Your task to perform on an android device: turn off improve location accuracy Image 0: 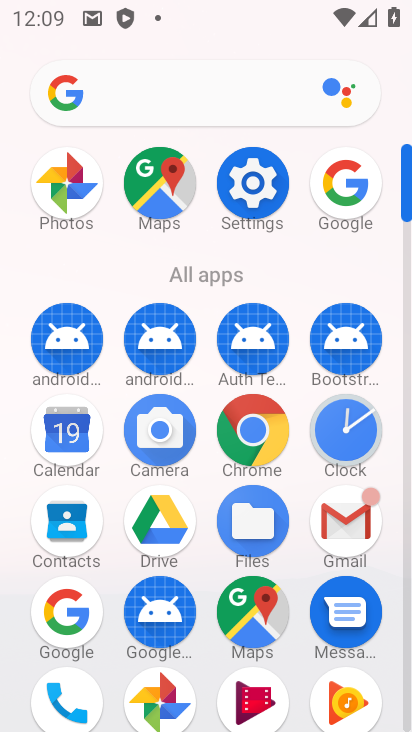
Step 0: press home button
Your task to perform on an android device: turn off improve location accuracy Image 1: 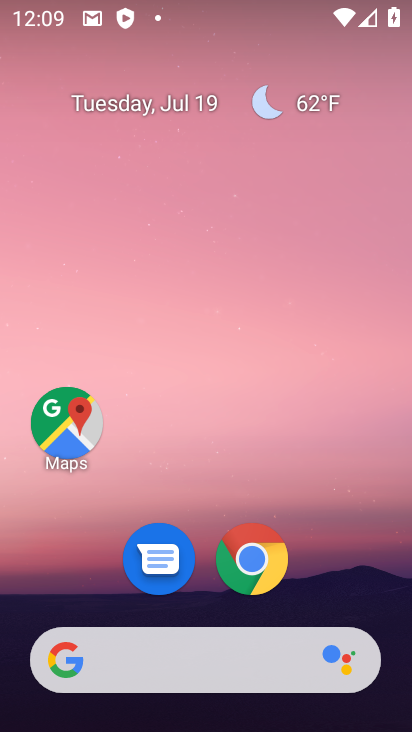
Step 1: drag from (280, 630) to (218, 164)
Your task to perform on an android device: turn off improve location accuracy Image 2: 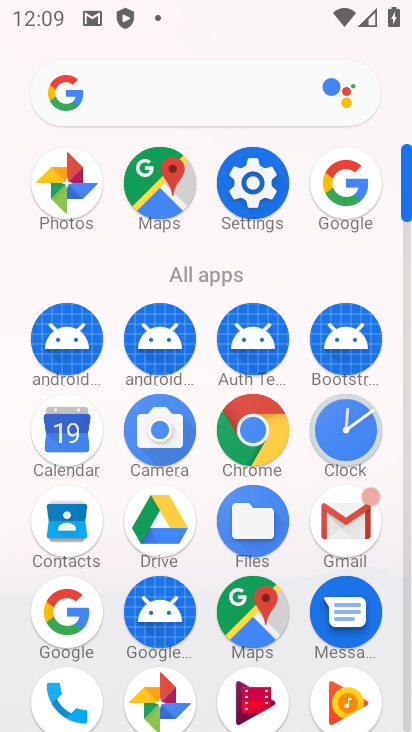
Step 2: click (264, 191)
Your task to perform on an android device: turn off improve location accuracy Image 3: 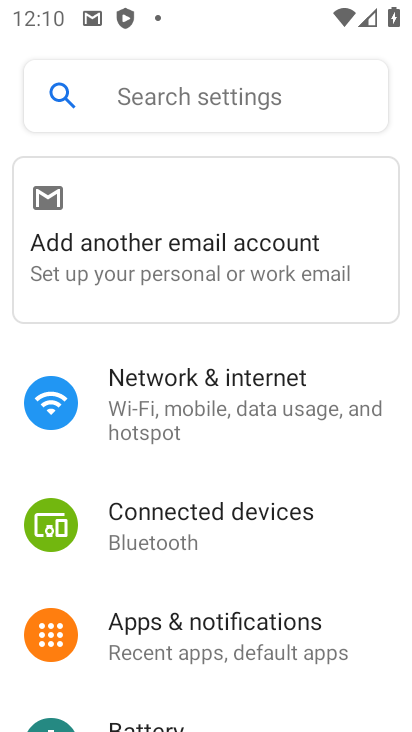
Step 3: drag from (256, 594) to (266, 230)
Your task to perform on an android device: turn off improve location accuracy Image 4: 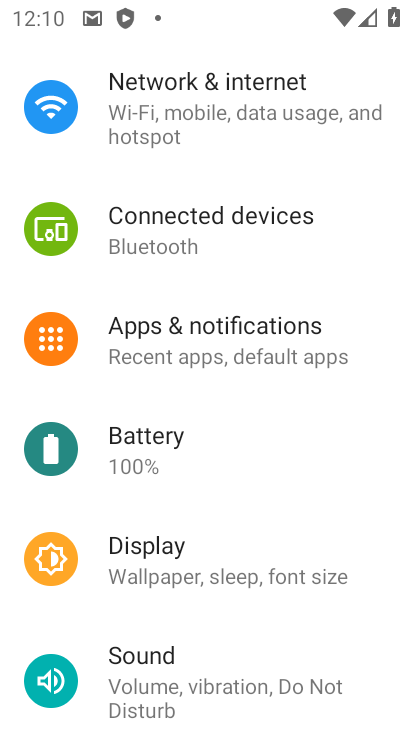
Step 4: drag from (220, 552) to (217, 271)
Your task to perform on an android device: turn off improve location accuracy Image 5: 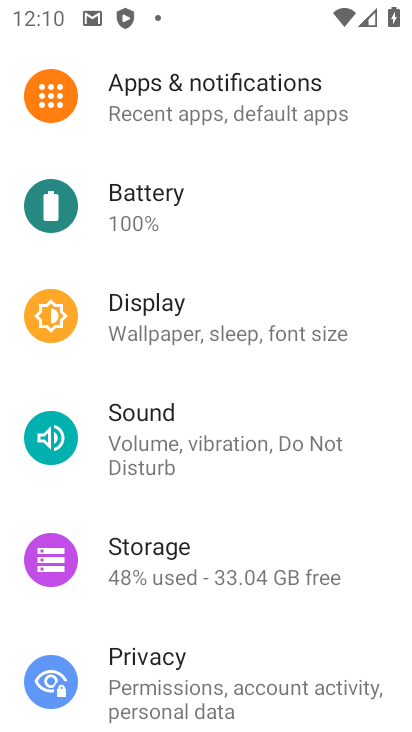
Step 5: drag from (182, 636) to (221, 249)
Your task to perform on an android device: turn off improve location accuracy Image 6: 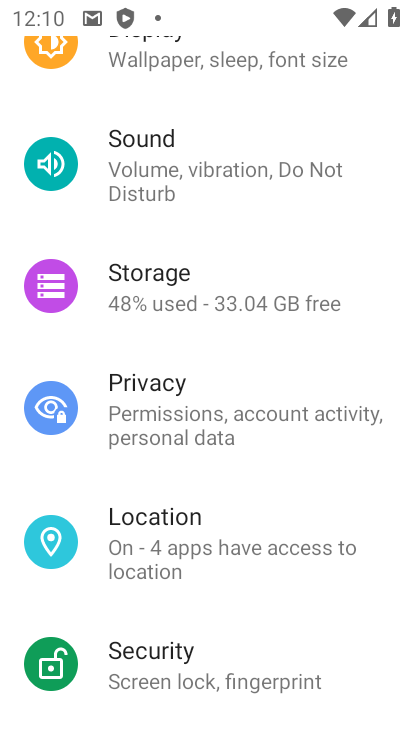
Step 6: click (192, 556)
Your task to perform on an android device: turn off improve location accuracy Image 7: 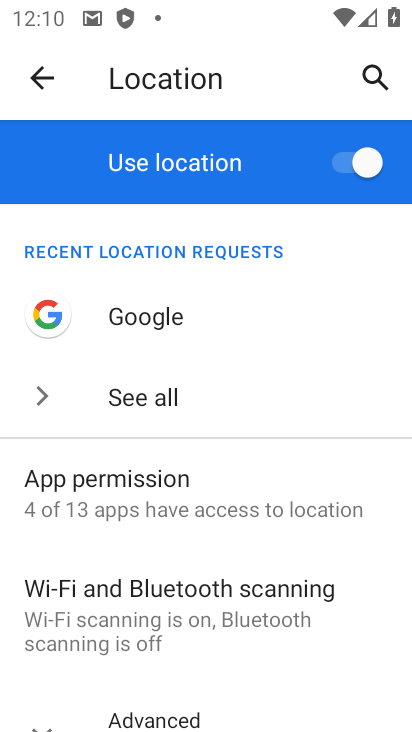
Step 7: drag from (198, 623) to (237, 215)
Your task to perform on an android device: turn off improve location accuracy Image 8: 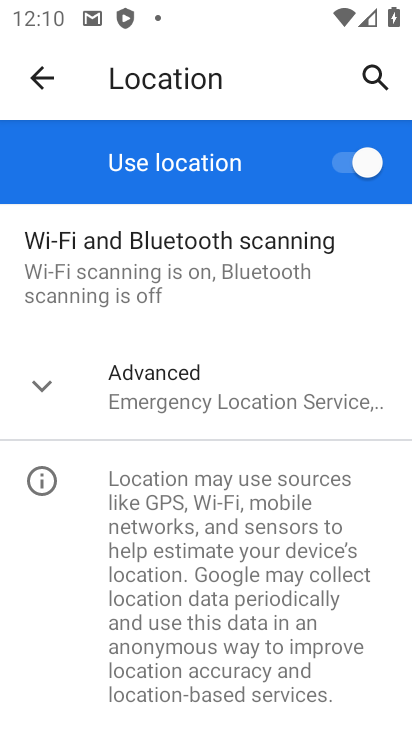
Step 8: click (226, 473)
Your task to perform on an android device: turn off improve location accuracy Image 9: 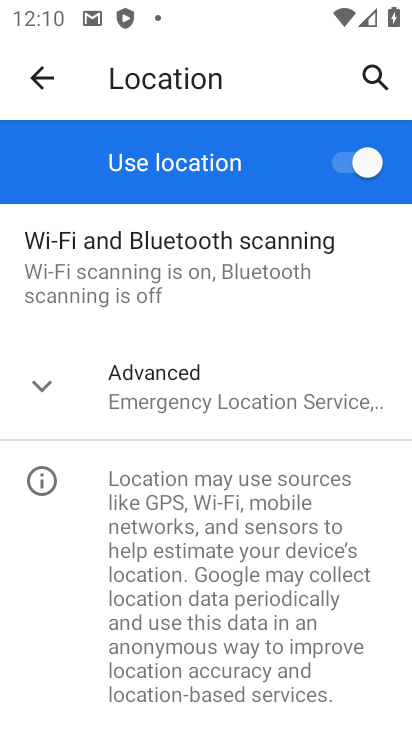
Step 9: click (198, 398)
Your task to perform on an android device: turn off improve location accuracy Image 10: 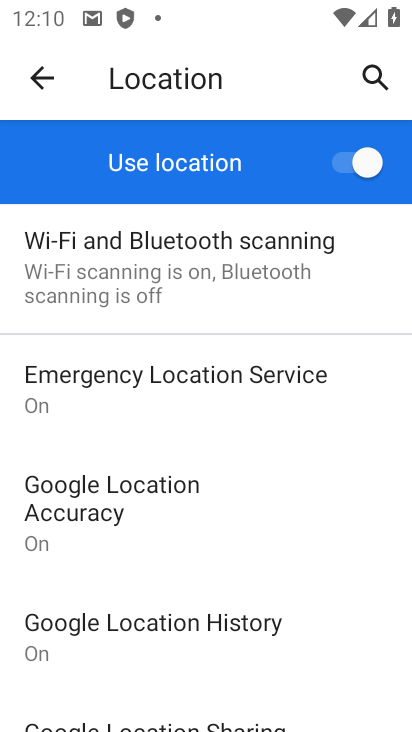
Step 10: drag from (223, 636) to (265, 325)
Your task to perform on an android device: turn off improve location accuracy Image 11: 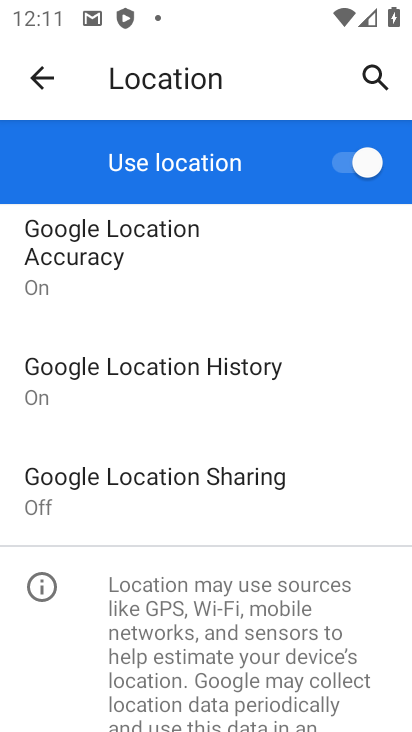
Step 11: click (144, 263)
Your task to perform on an android device: turn off improve location accuracy Image 12: 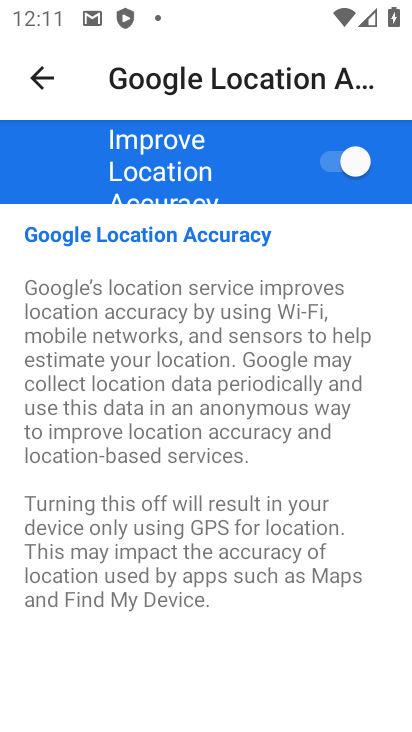
Step 12: click (328, 171)
Your task to perform on an android device: turn off improve location accuracy Image 13: 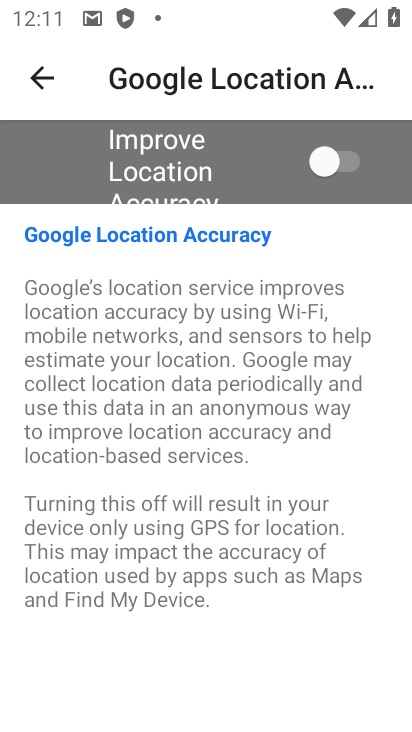
Step 13: task complete